Your task to perform on an android device: Open sound settings Image 0: 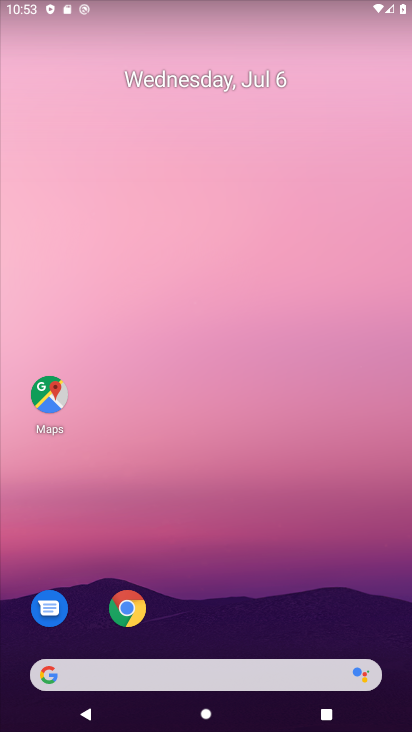
Step 0: drag from (204, 640) to (210, 0)
Your task to perform on an android device: Open sound settings Image 1: 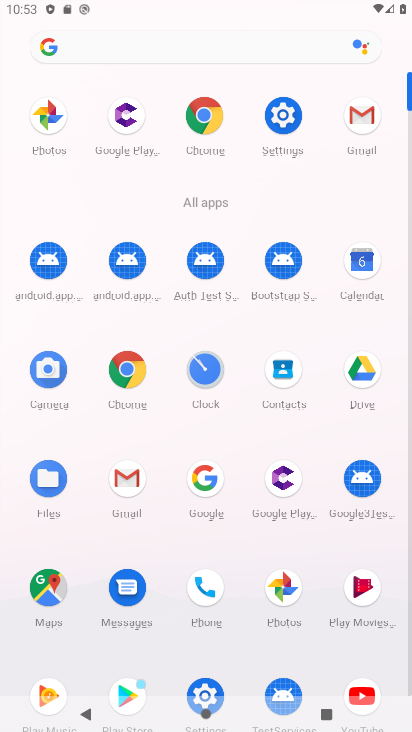
Step 1: click (267, 176)
Your task to perform on an android device: Open sound settings Image 2: 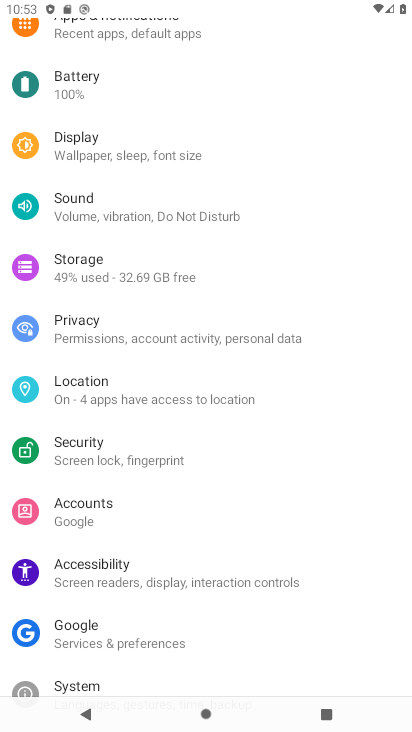
Step 2: click (92, 203)
Your task to perform on an android device: Open sound settings Image 3: 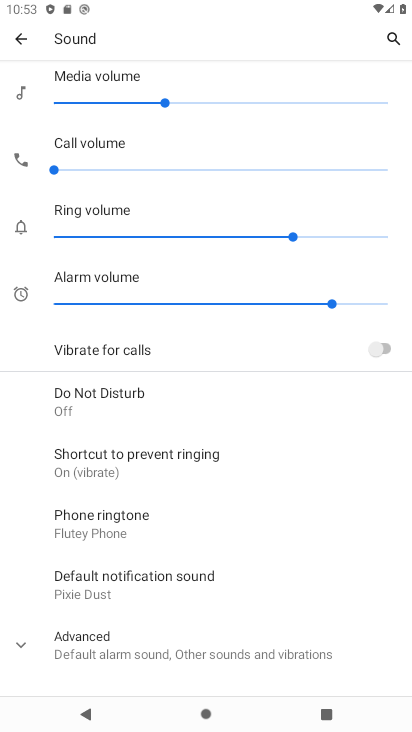
Step 3: task complete